Your task to perform on an android device: Go to Yahoo.com Image 0: 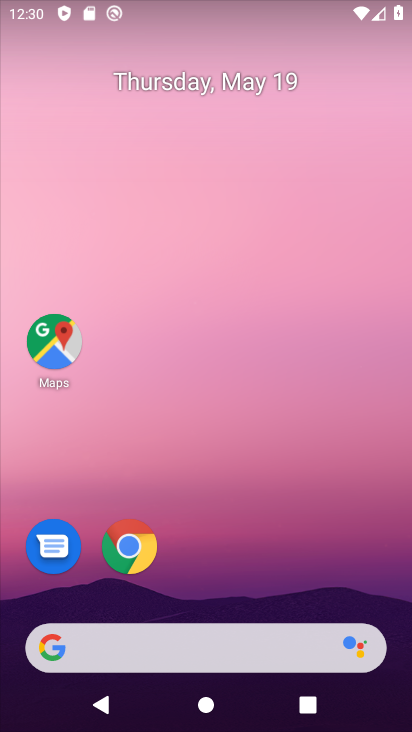
Step 0: click (127, 548)
Your task to perform on an android device: Go to Yahoo.com Image 1: 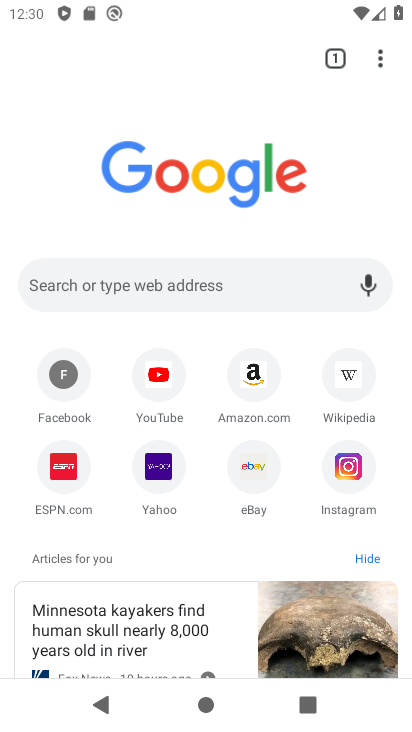
Step 1: click (208, 282)
Your task to perform on an android device: Go to Yahoo.com Image 2: 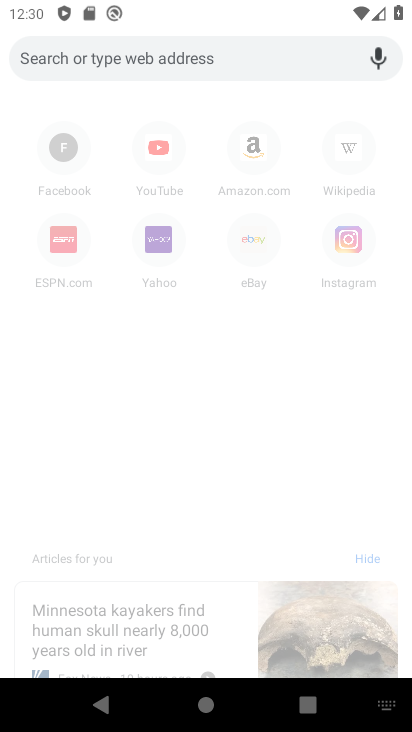
Step 2: type "Yahoo.com"
Your task to perform on an android device: Go to Yahoo.com Image 3: 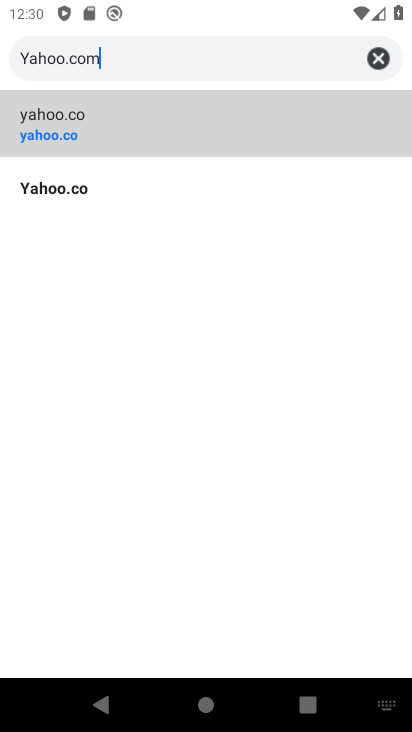
Step 3: type ""
Your task to perform on an android device: Go to Yahoo.com Image 4: 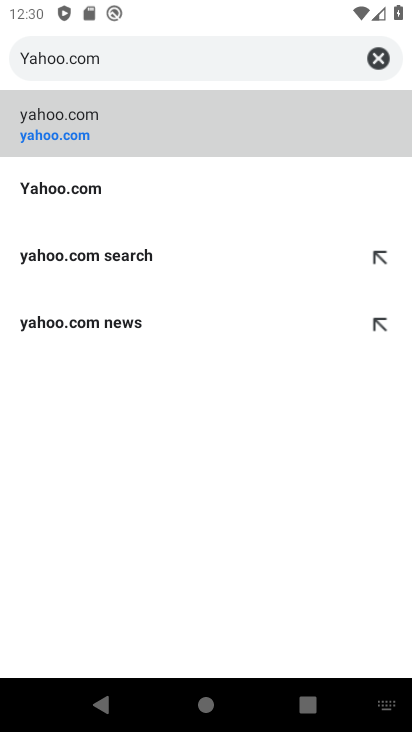
Step 4: click (67, 188)
Your task to perform on an android device: Go to Yahoo.com Image 5: 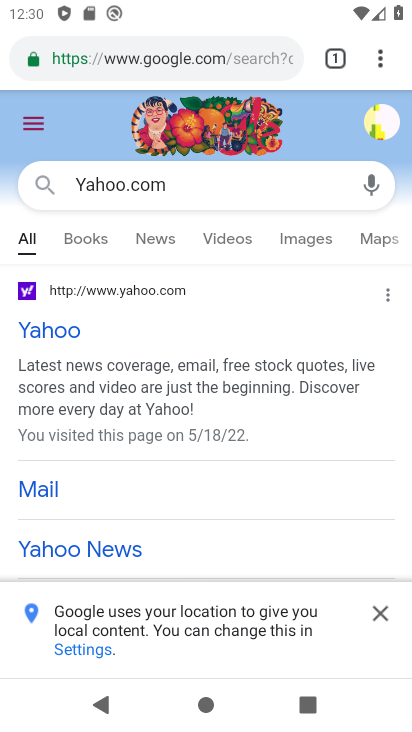
Step 5: click (67, 330)
Your task to perform on an android device: Go to Yahoo.com Image 6: 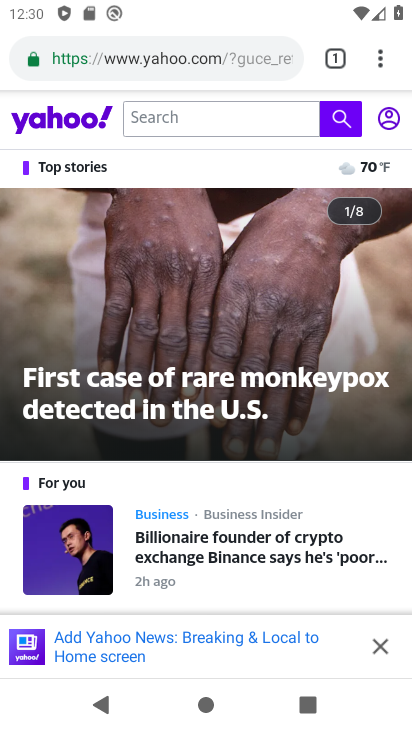
Step 6: task complete